Your task to perform on an android device: turn vacation reply on in the gmail app Image 0: 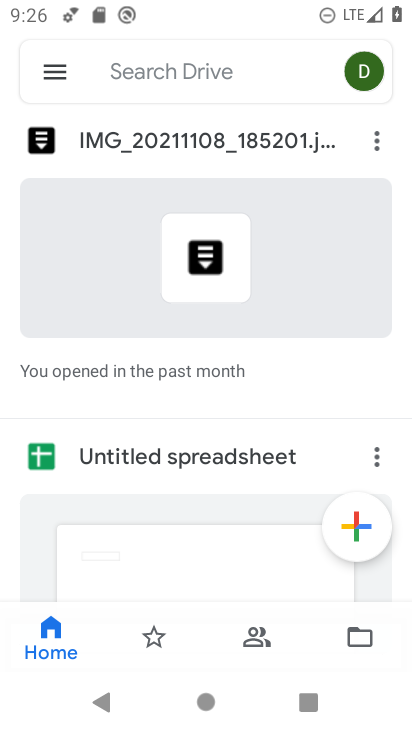
Step 0: press back button
Your task to perform on an android device: turn vacation reply on in the gmail app Image 1: 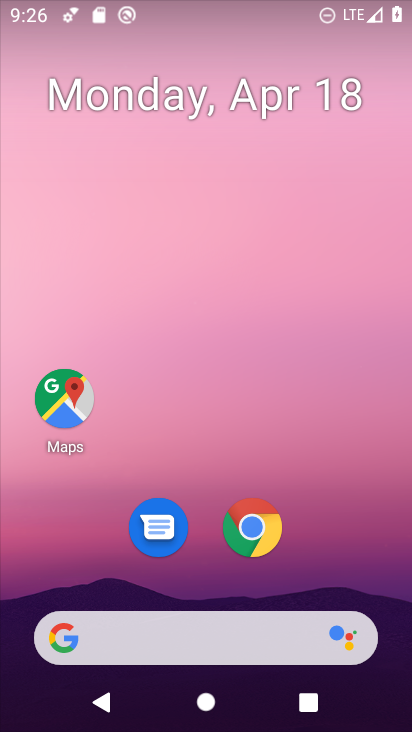
Step 1: drag from (383, 561) to (310, 35)
Your task to perform on an android device: turn vacation reply on in the gmail app Image 2: 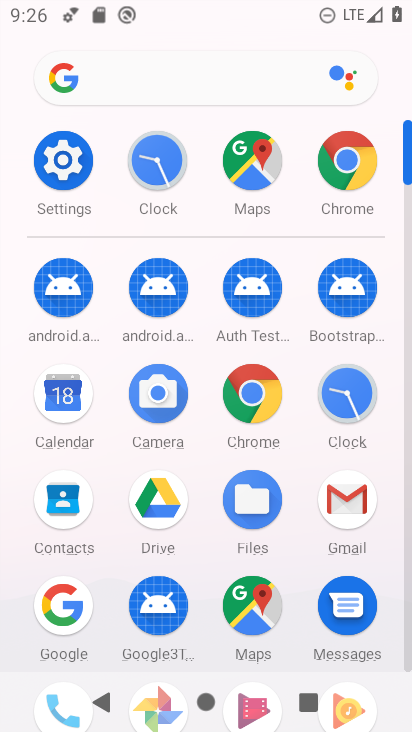
Step 2: drag from (12, 515) to (38, 274)
Your task to perform on an android device: turn vacation reply on in the gmail app Image 3: 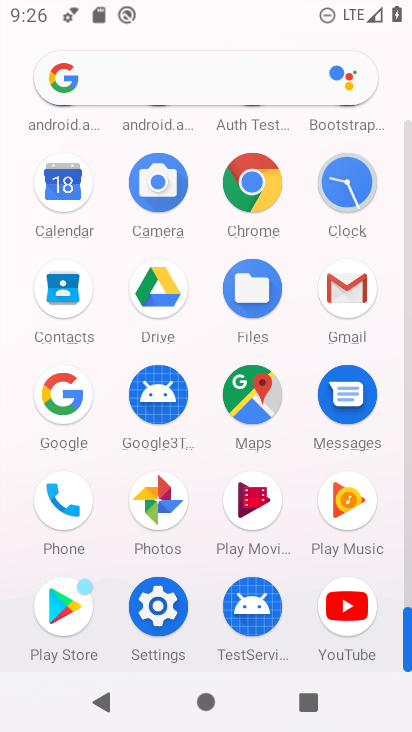
Step 3: click (344, 275)
Your task to perform on an android device: turn vacation reply on in the gmail app Image 4: 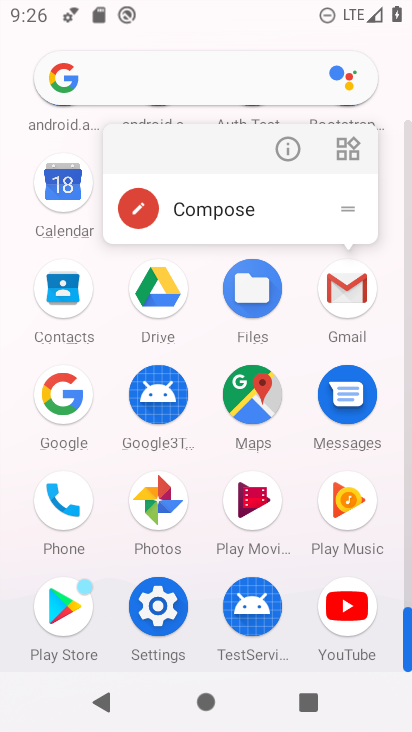
Step 4: click (344, 275)
Your task to perform on an android device: turn vacation reply on in the gmail app Image 5: 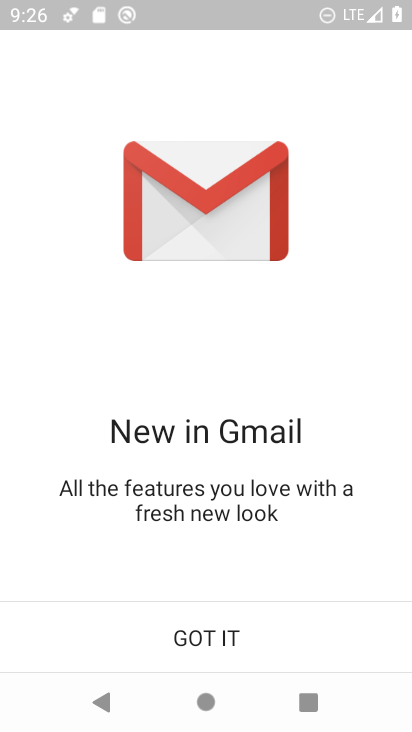
Step 5: click (194, 615)
Your task to perform on an android device: turn vacation reply on in the gmail app Image 6: 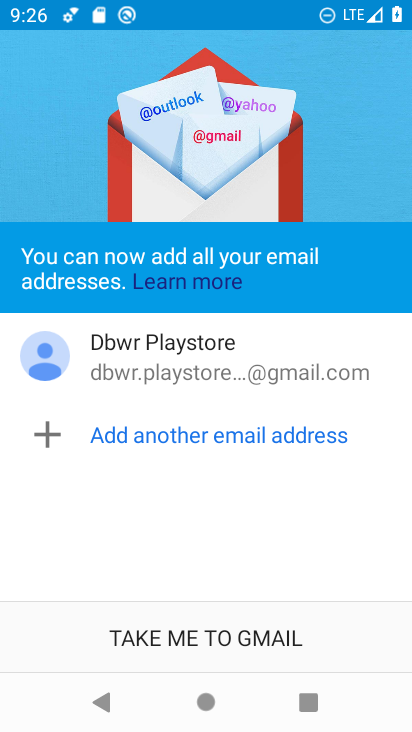
Step 6: click (207, 625)
Your task to perform on an android device: turn vacation reply on in the gmail app Image 7: 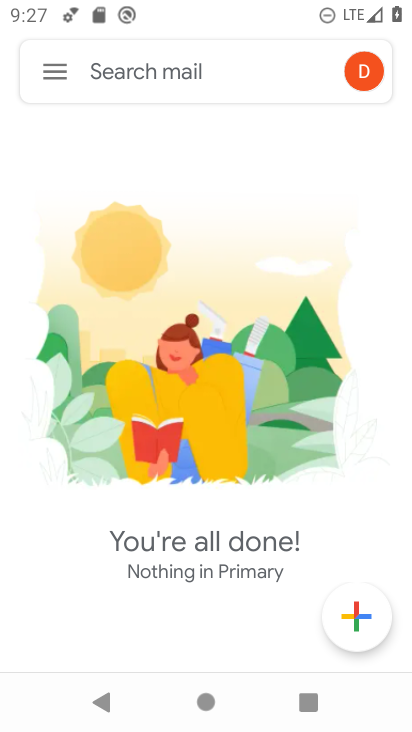
Step 7: click (58, 73)
Your task to perform on an android device: turn vacation reply on in the gmail app Image 8: 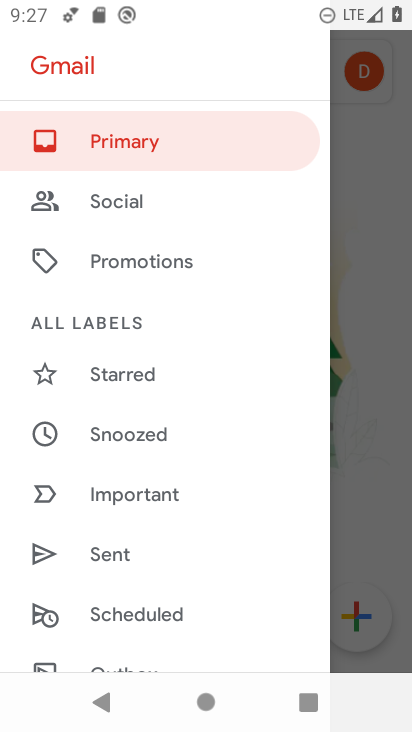
Step 8: drag from (181, 542) to (198, 169)
Your task to perform on an android device: turn vacation reply on in the gmail app Image 9: 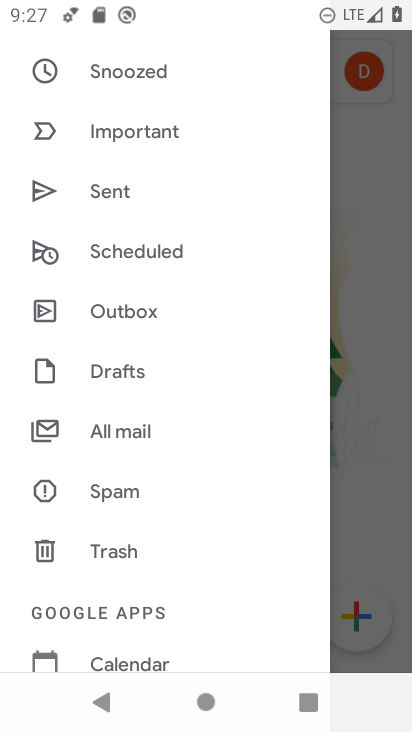
Step 9: drag from (180, 542) to (198, 158)
Your task to perform on an android device: turn vacation reply on in the gmail app Image 10: 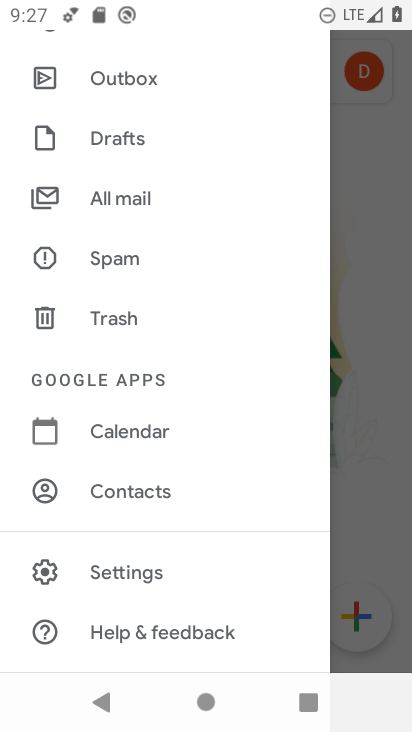
Step 10: click (173, 564)
Your task to perform on an android device: turn vacation reply on in the gmail app Image 11: 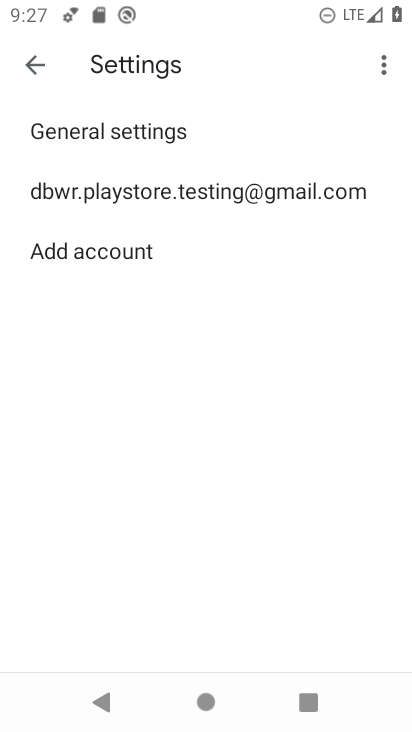
Step 11: click (222, 198)
Your task to perform on an android device: turn vacation reply on in the gmail app Image 12: 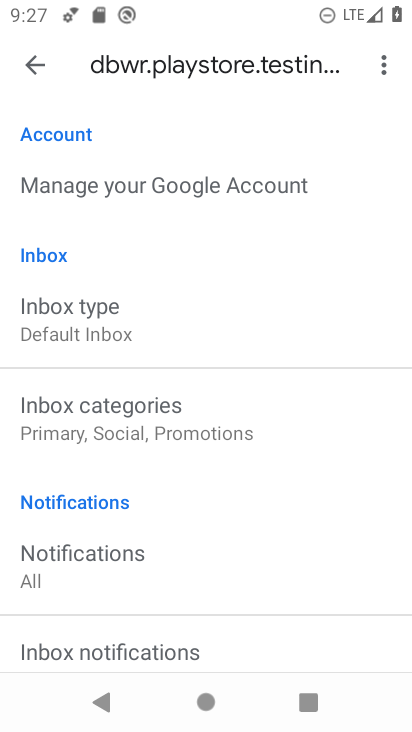
Step 12: drag from (230, 502) to (227, 149)
Your task to perform on an android device: turn vacation reply on in the gmail app Image 13: 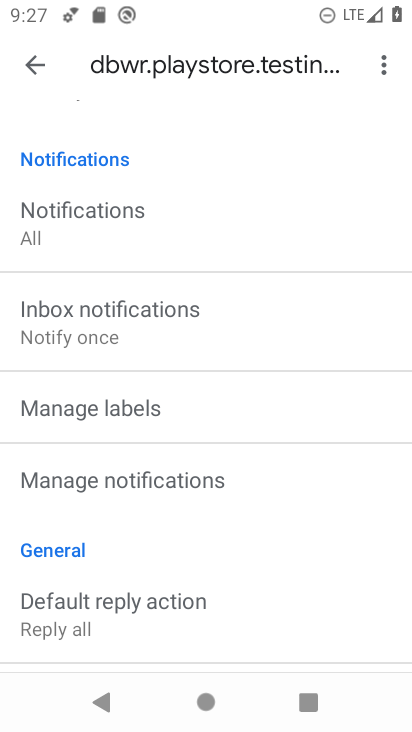
Step 13: drag from (224, 515) to (252, 245)
Your task to perform on an android device: turn vacation reply on in the gmail app Image 14: 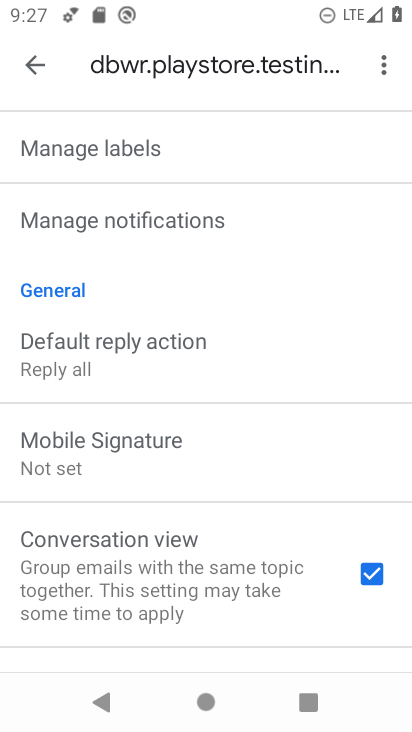
Step 14: drag from (186, 590) to (243, 168)
Your task to perform on an android device: turn vacation reply on in the gmail app Image 15: 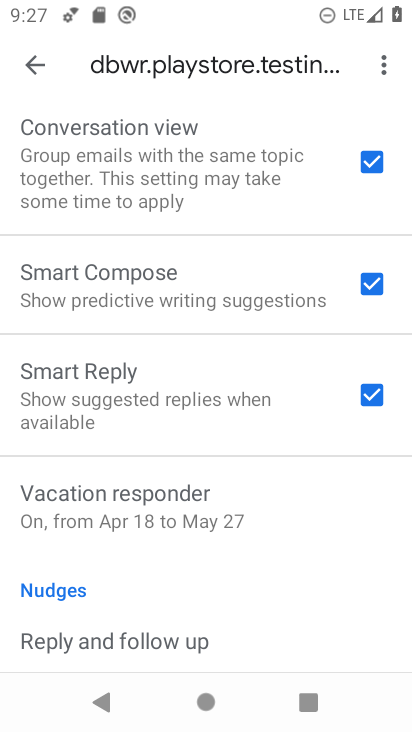
Step 15: click (198, 487)
Your task to perform on an android device: turn vacation reply on in the gmail app Image 16: 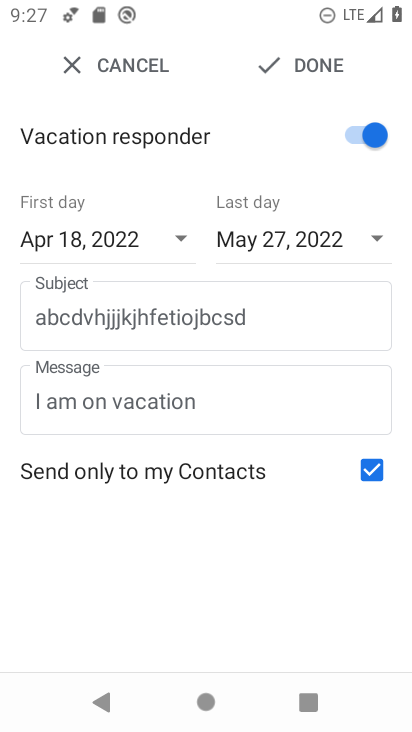
Step 16: click (290, 59)
Your task to perform on an android device: turn vacation reply on in the gmail app Image 17: 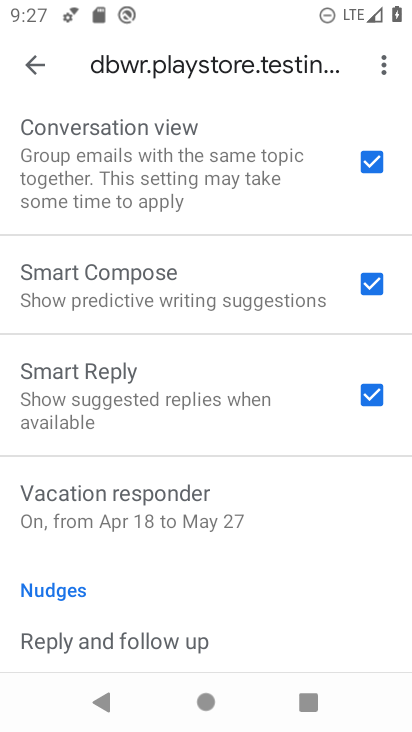
Step 17: task complete